Your task to perform on an android device: Go to settings Image 0: 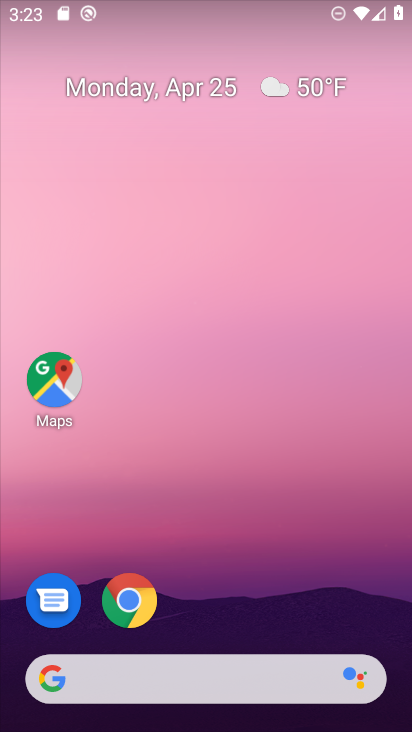
Step 0: drag from (205, 646) to (159, 152)
Your task to perform on an android device: Go to settings Image 1: 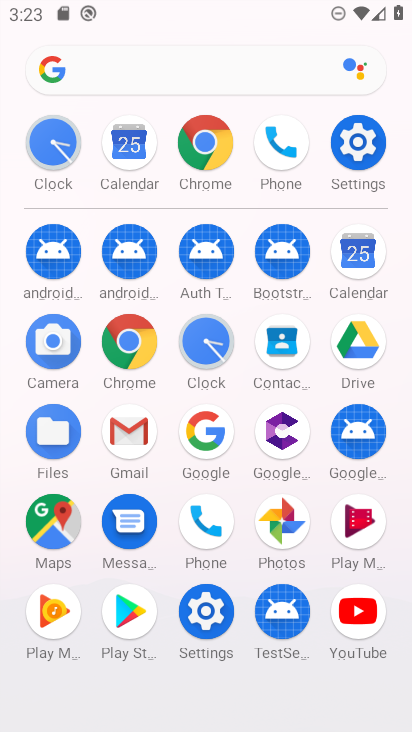
Step 1: click (203, 605)
Your task to perform on an android device: Go to settings Image 2: 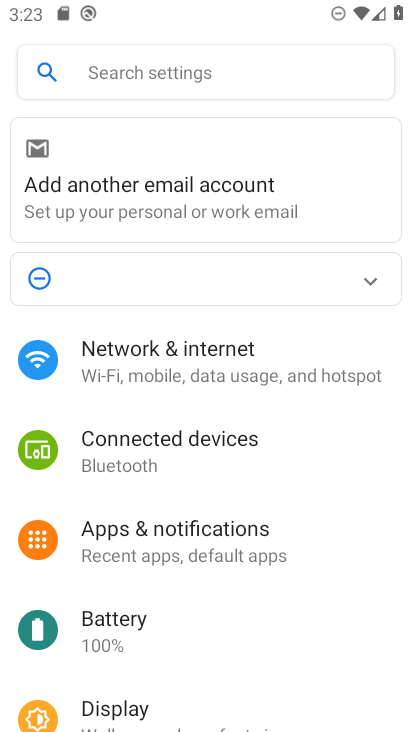
Step 2: task complete